Your task to perform on an android device: turn on location history Image 0: 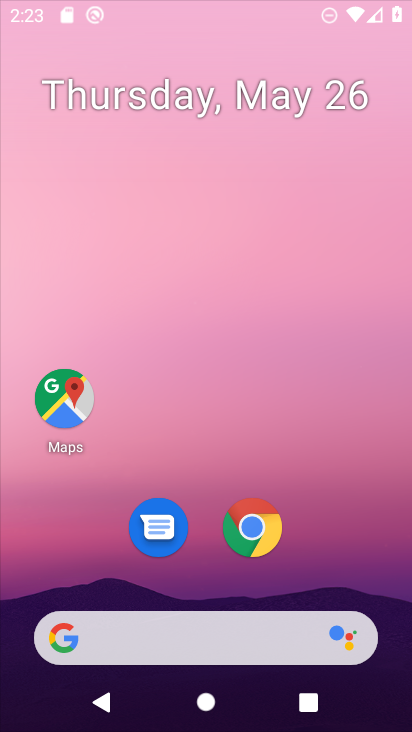
Step 0: drag from (236, 173) to (244, 110)
Your task to perform on an android device: turn on location history Image 1: 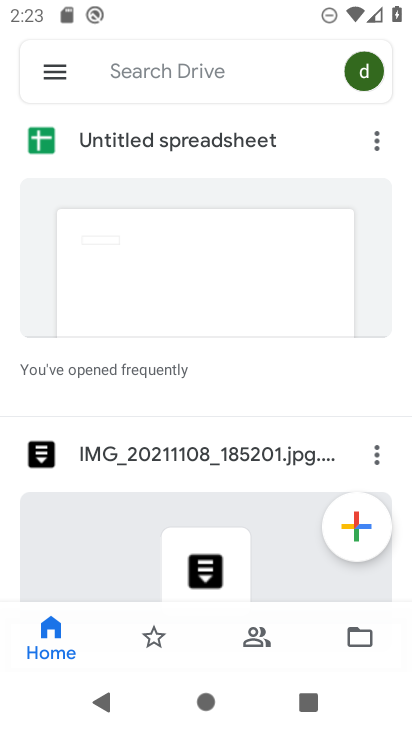
Step 1: press back button
Your task to perform on an android device: turn on location history Image 2: 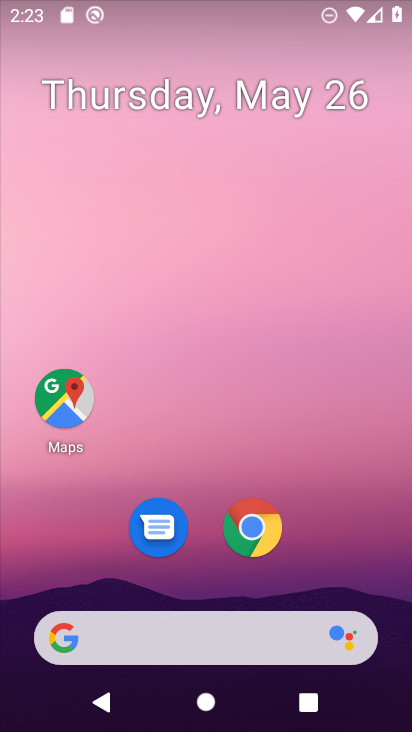
Step 2: drag from (207, 569) to (229, 88)
Your task to perform on an android device: turn on location history Image 3: 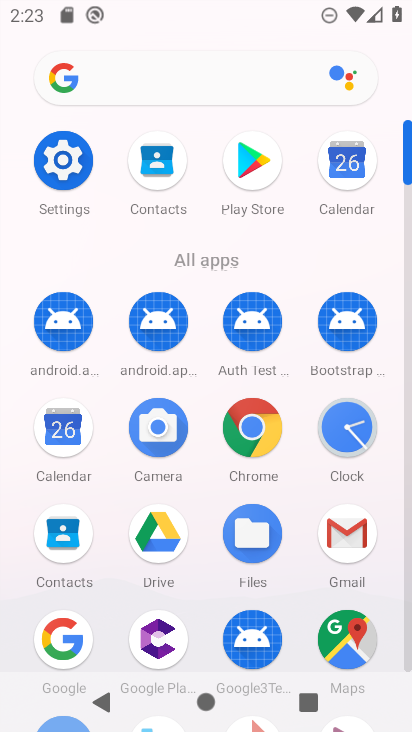
Step 3: click (63, 157)
Your task to perform on an android device: turn on location history Image 4: 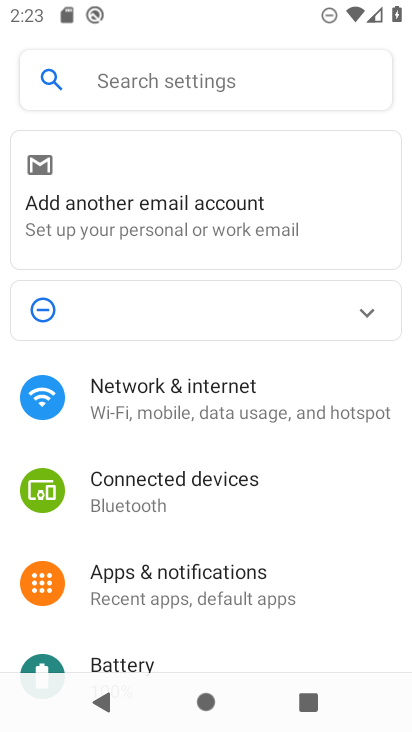
Step 4: drag from (205, 621) to (295, 138)
Your task to perform on an android device: turn on location history Image 5: 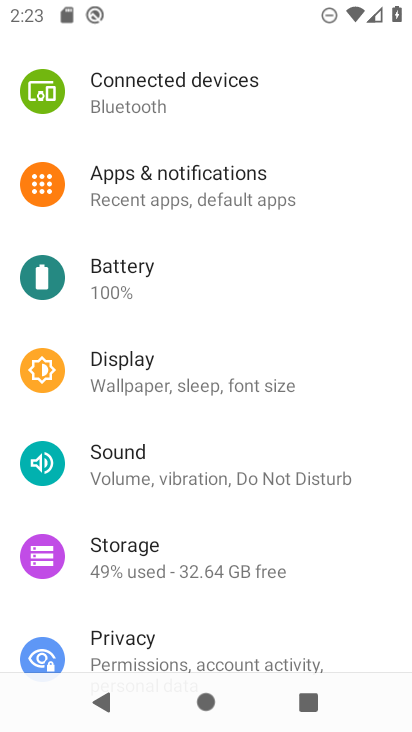
Step 5: drag from (198, 567) to (312, 10)
Your task to perform on an android device: turn on location history Image 6: 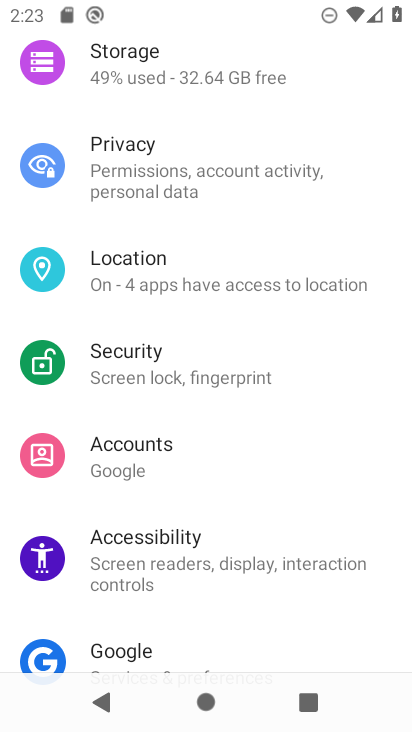
Step 6: click (144, 279)
Your task to perform on an android device: turn on location history Image 7: 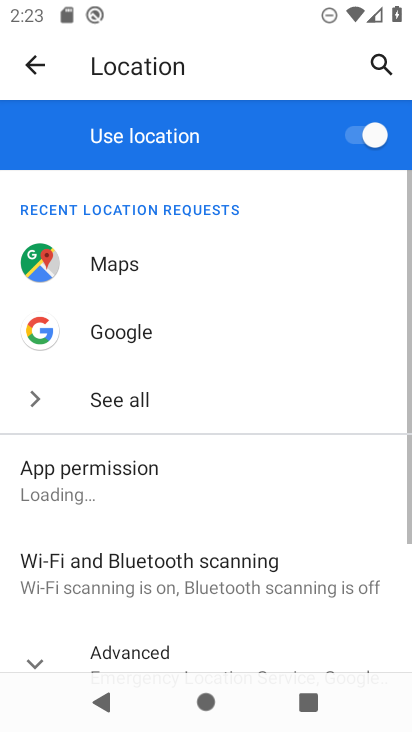
Step 7: drag from (168, 609) to (276, 131)
Your task to perform on an android device: turn on location history Image 8: 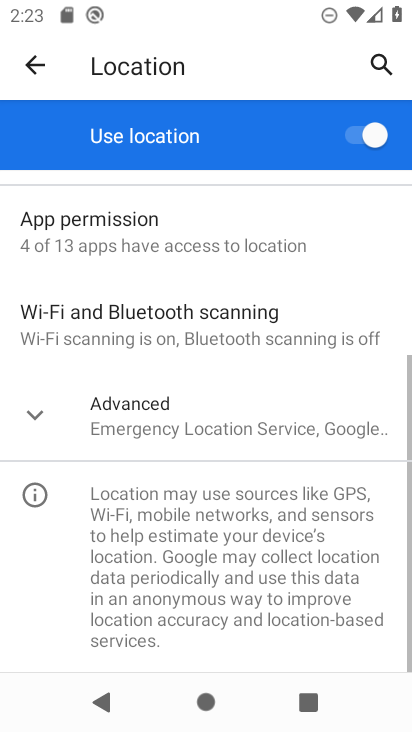
Step 8: click (167, 406)
Your task to perform on an android device: turn on location history Image 9: 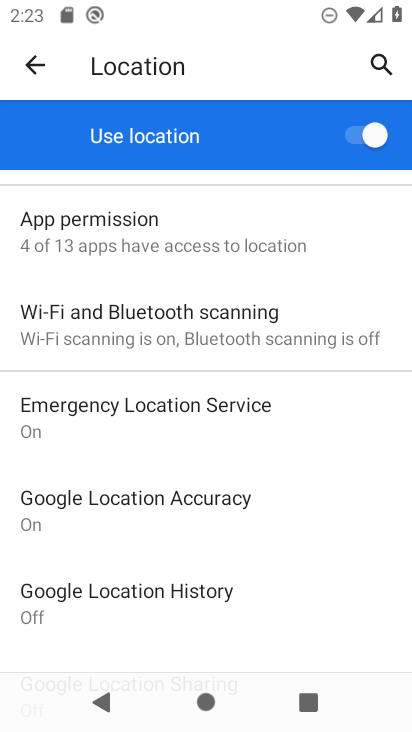
Step 9: click (168, 591)
Your task to perform on an android device: turn on location history Image 10: 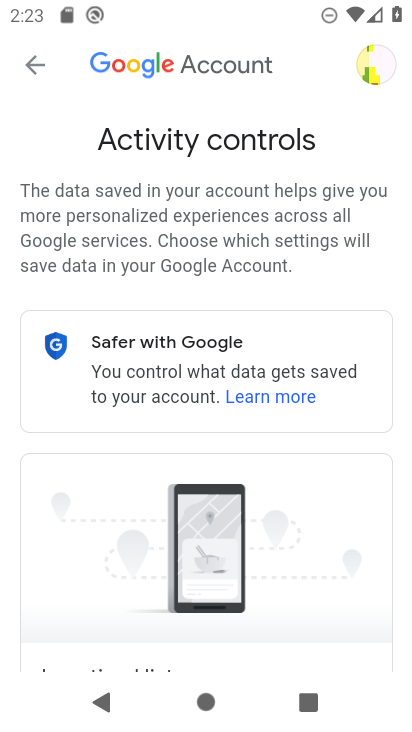
Step 10: drag from (194, 501) to (237, 35)
Your task to perform on an android device: turn on location history Image 11: 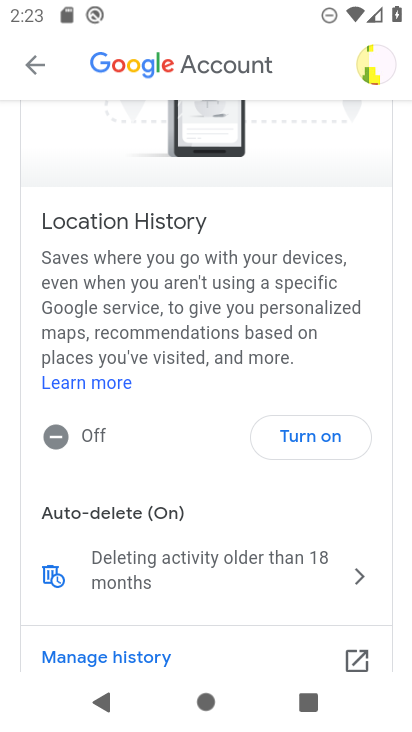
Step 11: click (309, 438)
Your task to perform on an android device: turn on location history Image 12: 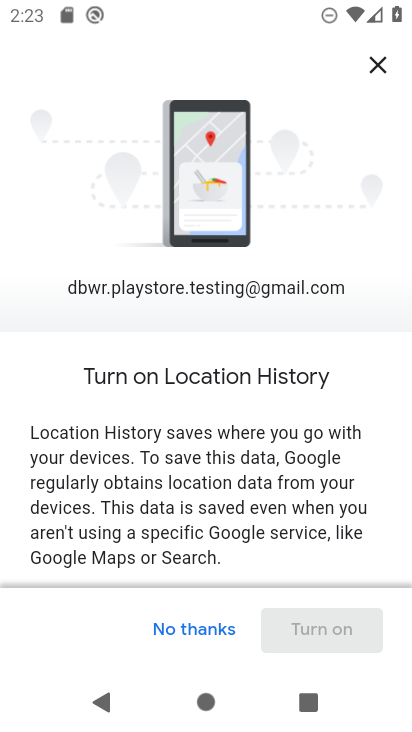
Step 12: drag from (266, 430) to (305, 39)
Your task to perform on an android device: turn on location history Image 13: 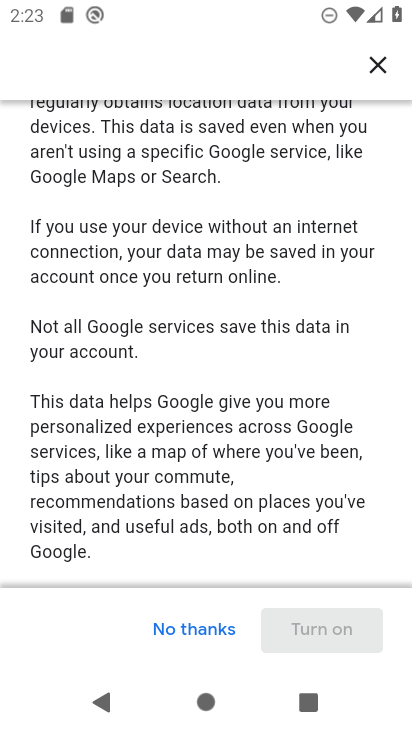
Step 13: drag from (255, 387) to (255, 14)
Your task to perform on an android device: turn on location history Image 14: 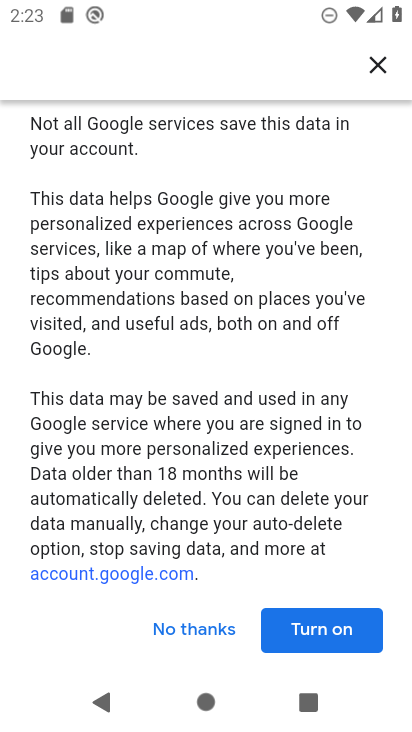
Step 14: click (329, 625)
Your task to perform on an android device: turn on location history Image 15: 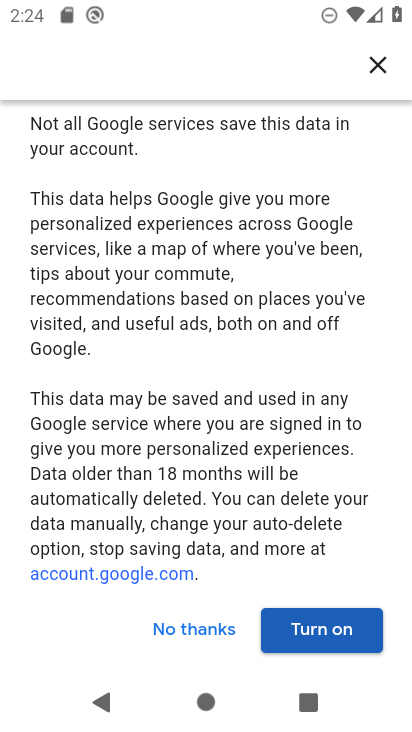
Step 15: click (321, 626)
Your task to perform on an android device: turn on location history Image 16: 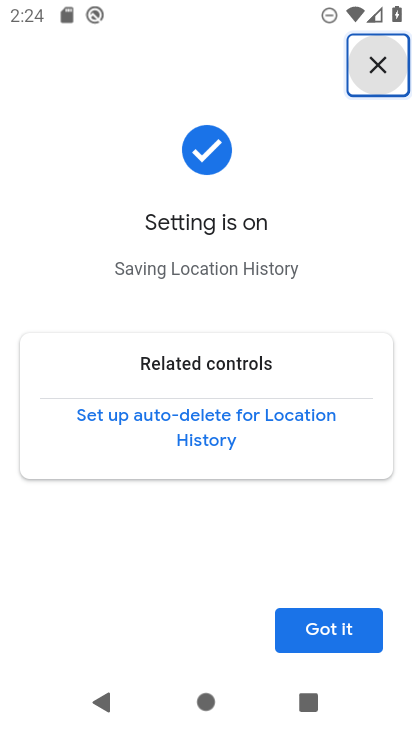
Step 16: task complete